Your task to perform on an android device: Is it going to rain today? Image 0: 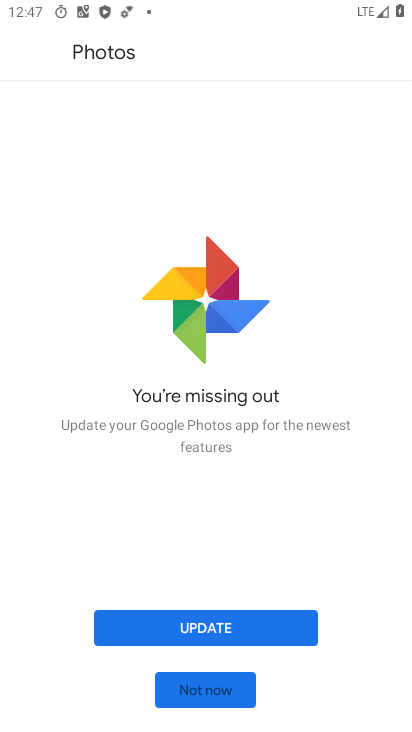
Step 0: press home button
Your task to perform on an android device: Is it going to rain today? Image 1: 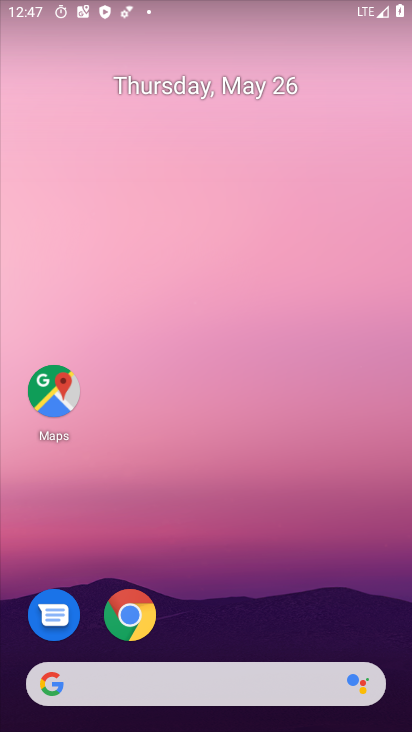
Step 1: click (140, 620)
Your task to perform on an android device: Is it going to rain today? Image 2: 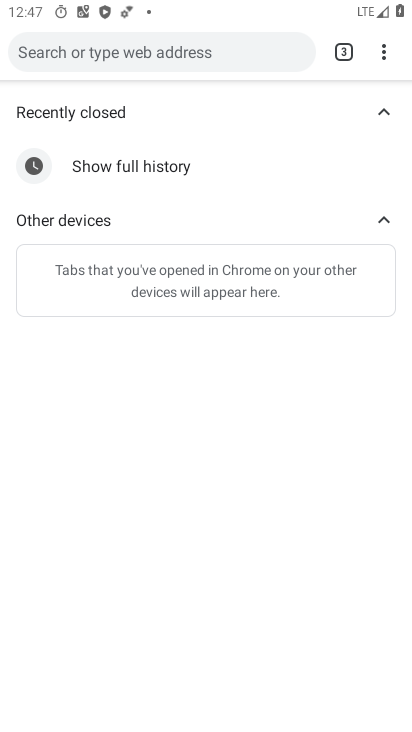
Step 2: click (239, 66)
Your task to perform on an android device: Is it going to rain today? Image 3: 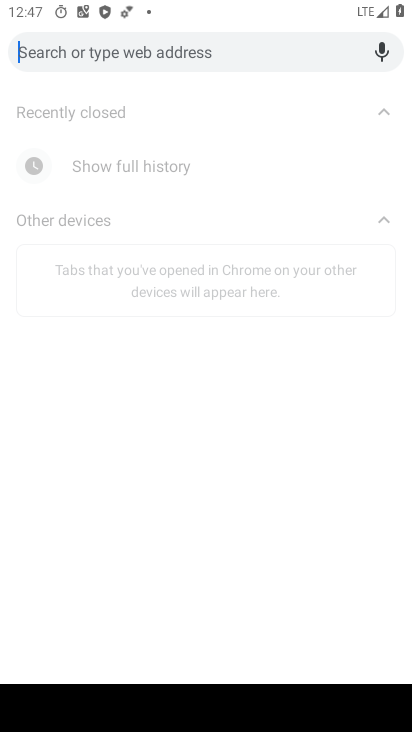
Step 3: type "Is it going to rain today?"
Your task to perform on an android device: Is it going to rain today? Image 4: 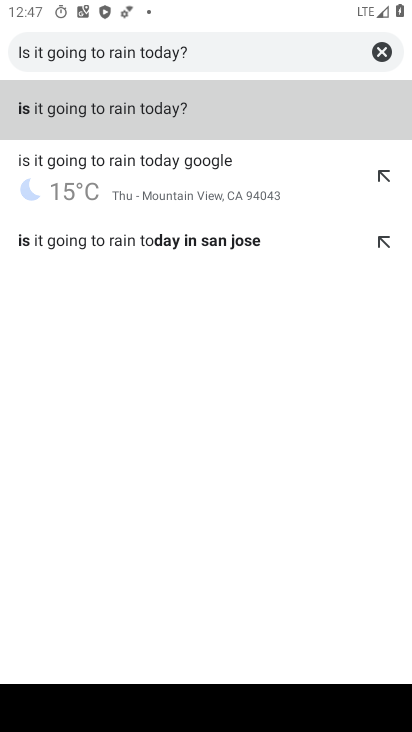
Step 4: click (91, 108)
Your task to perform on an android device: Is it going to rain today? Image 5: 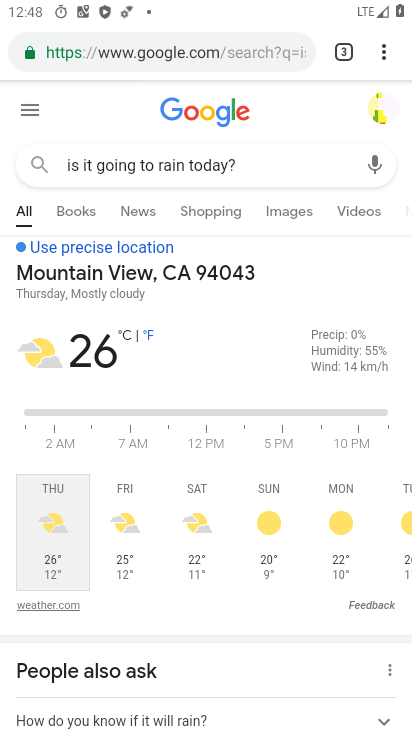
Step 5: task complete